Your task to perform on an android device: What's the weather? Image 0: 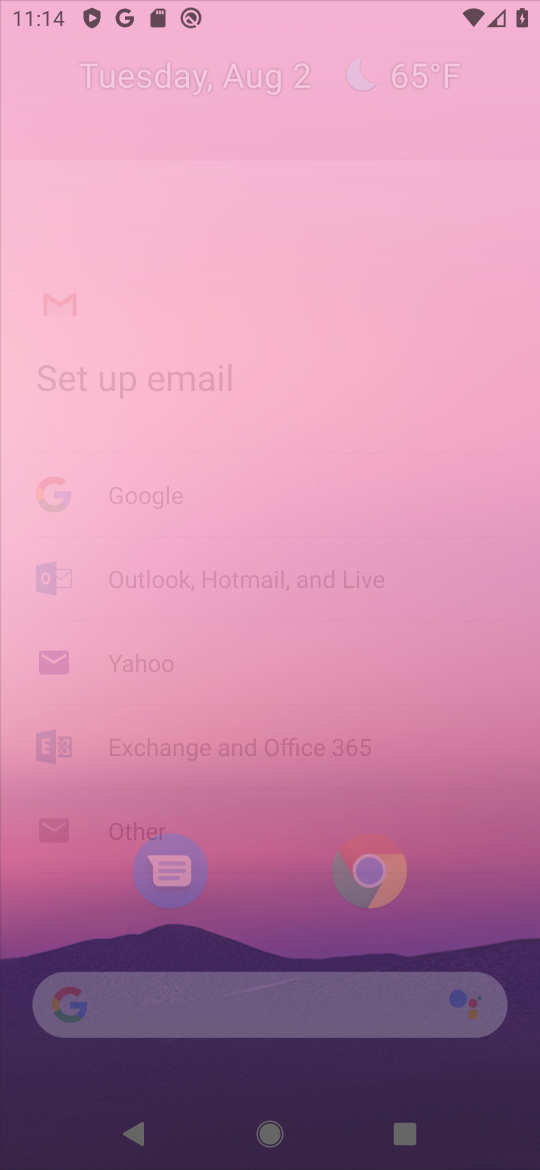
Step 0: click (310, 349)
Your task to perform on an android device: What's the weather? Image 1: 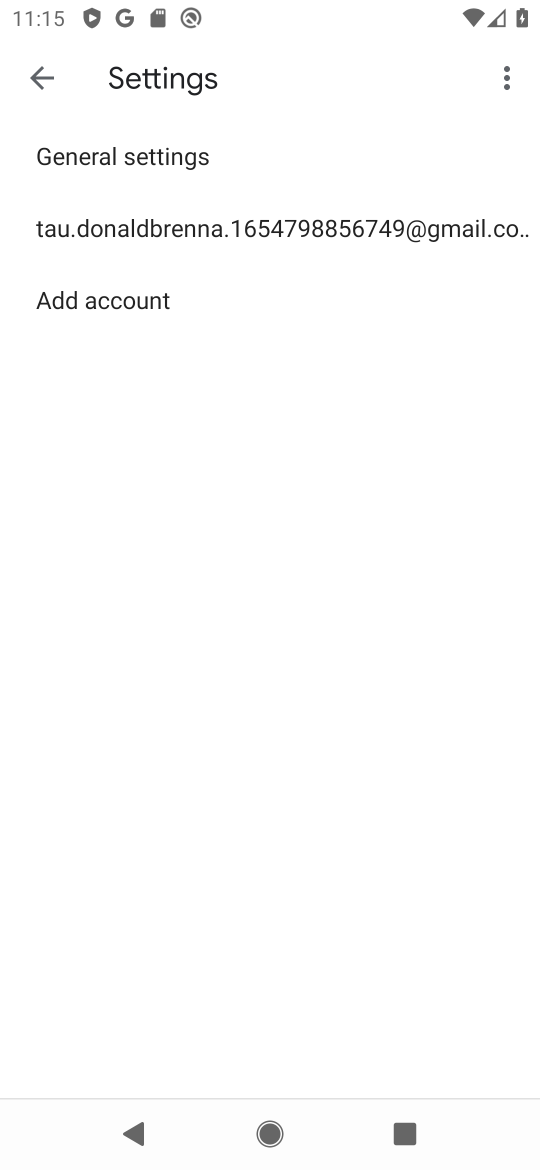
Step 1: click (61, 66)
Your task to perform on an android device: What's the weather? Image 2: 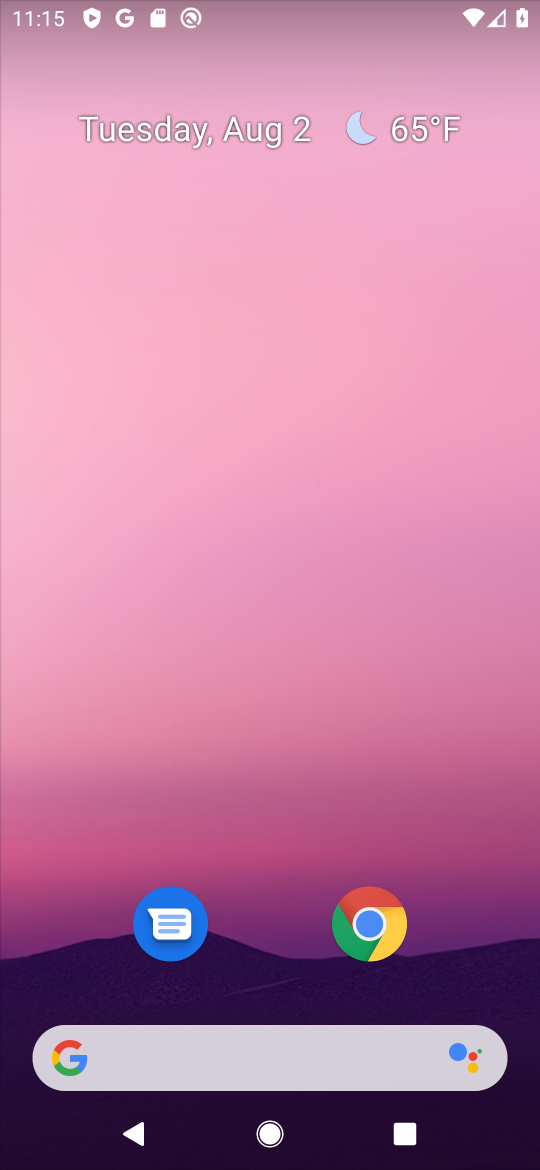
Step 2: drag from (240, 988) to (321, 175)
Your task to perform on an android device: What's the weather? Image 3: 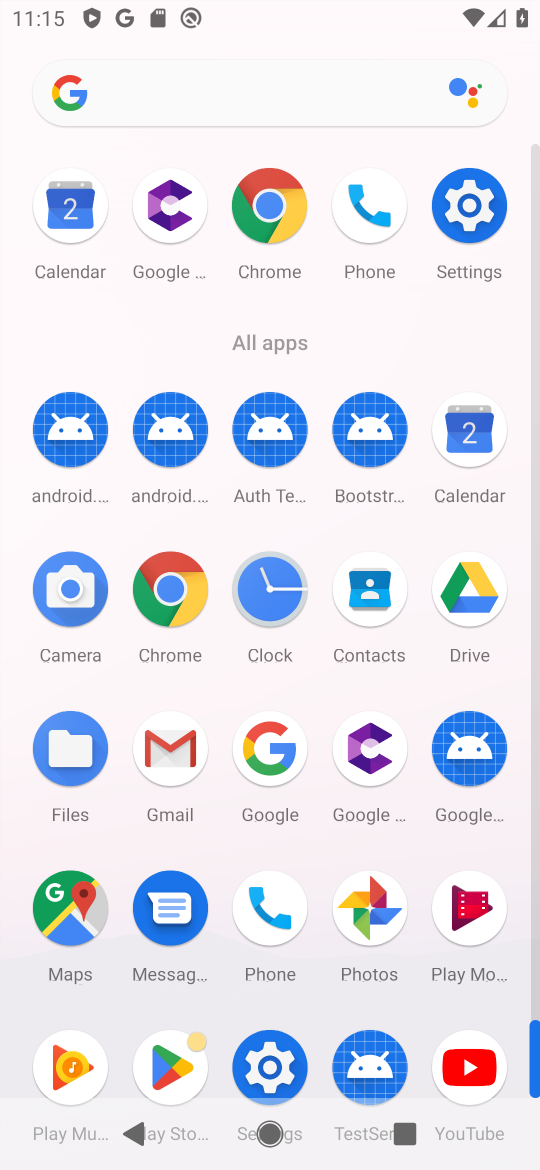
Step 3: click (260, 216)
Your task to perform on an android device: What's the weather? Image 4: 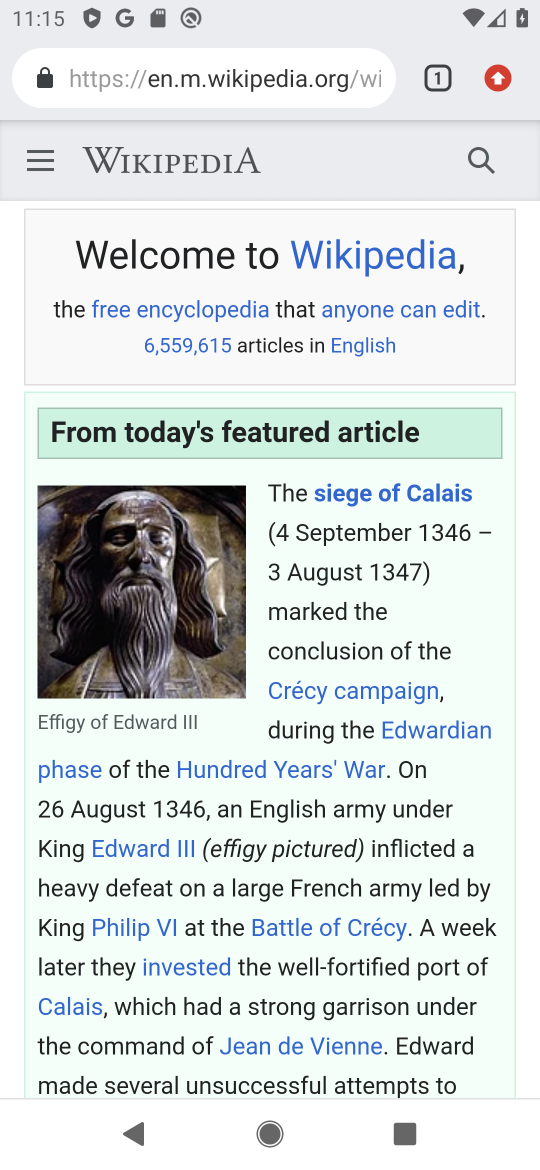
Step 4: click (508, 75)
Your task to perform on an android device: What's the weather? Image 5: 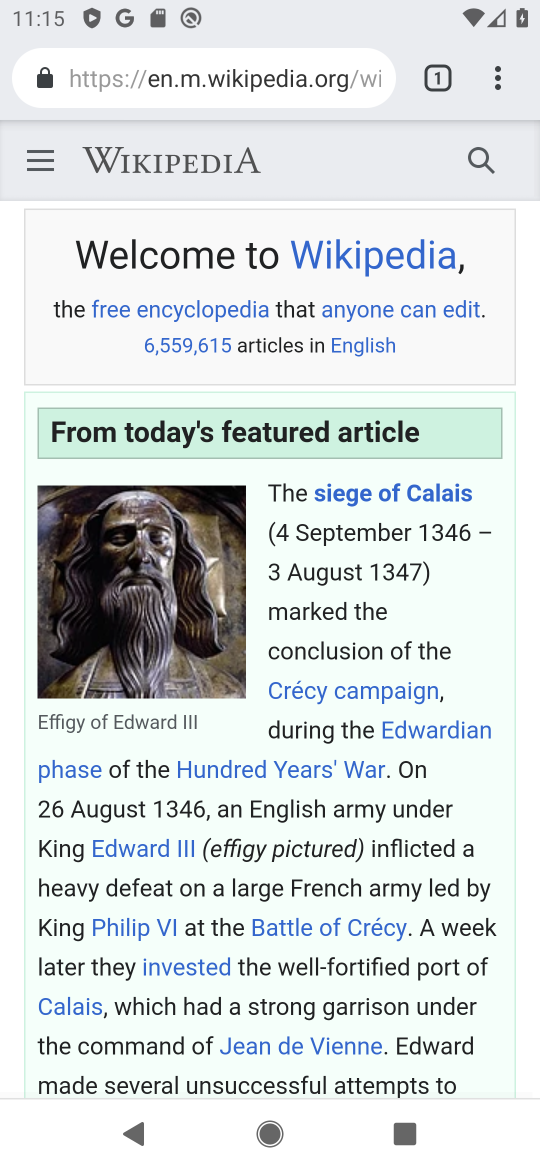
Step 5: click (508, 75)
Your task to perform on an android device: What's the weather? Image 6: 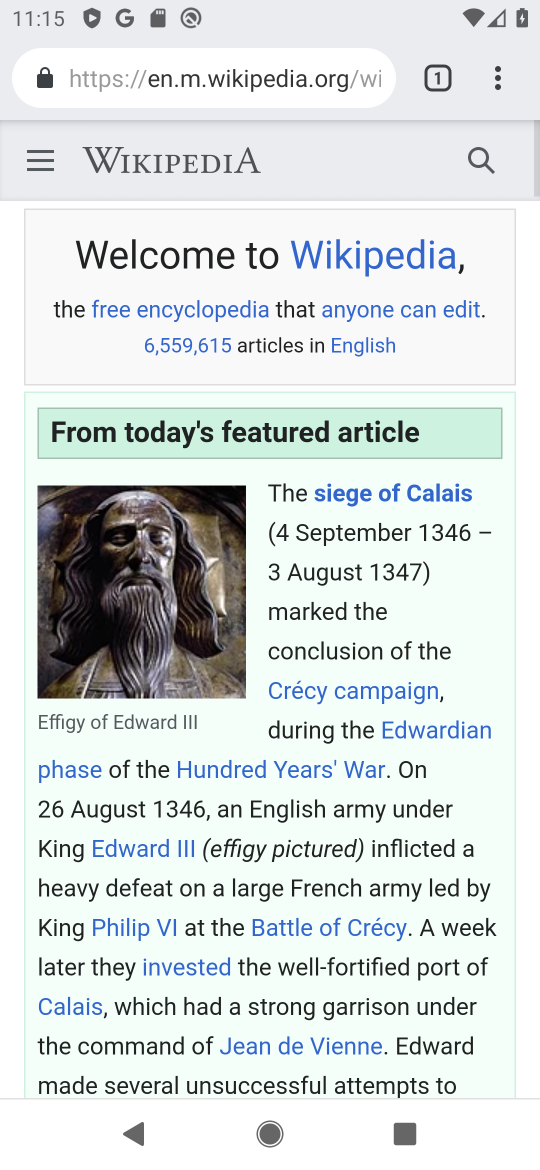
Step 6: click (493, 72)
Your task to perform on an android device: What's the weather? Image 7: 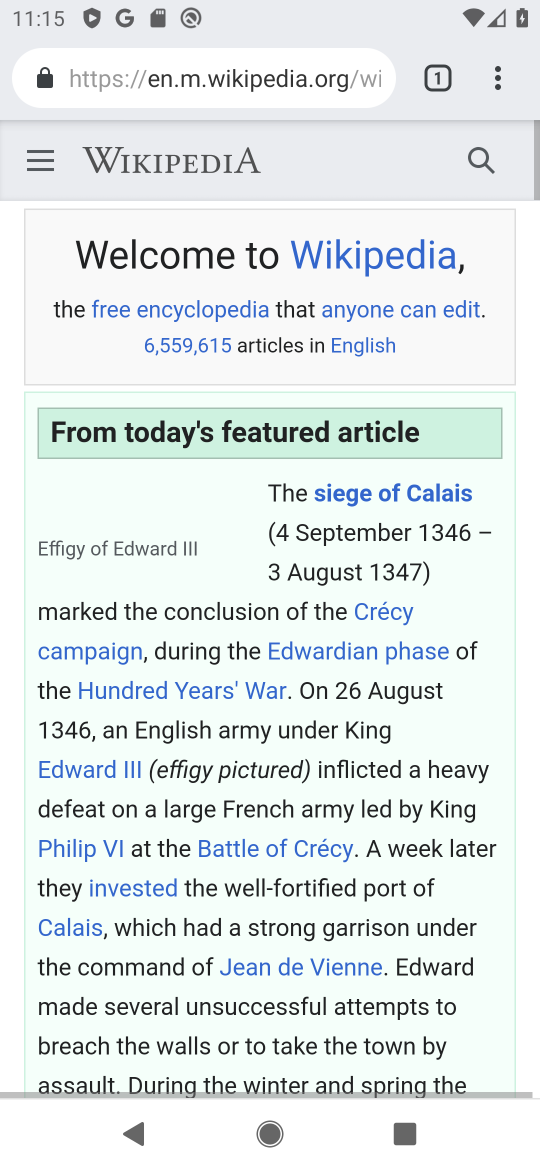
Step 7: click (493, 72)
Your task to perform on an android device: What's the weather? Image 8: 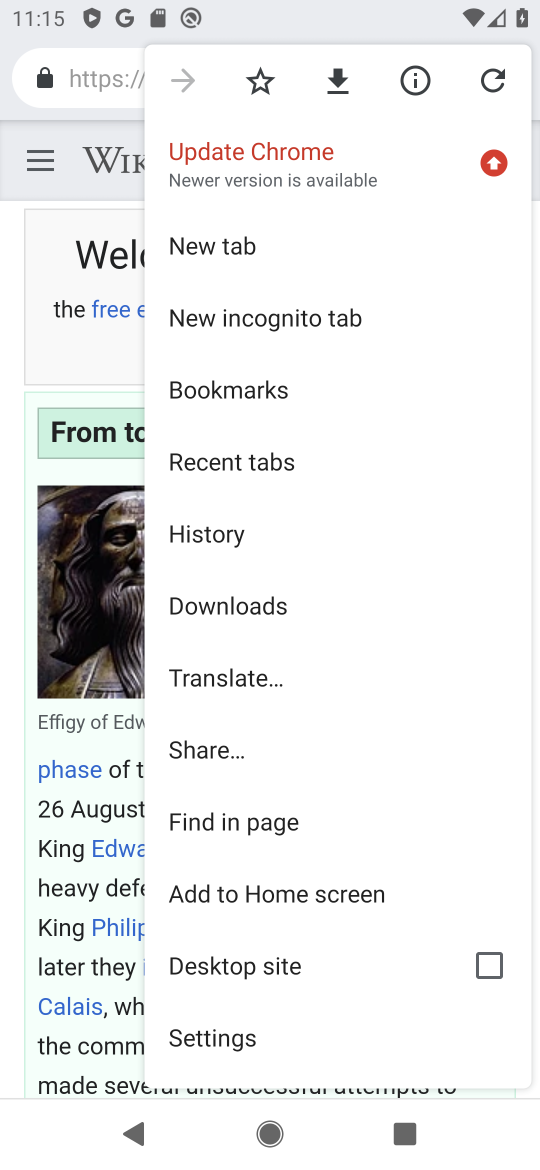
Step 8: click (216, 261)
Your task to perform on an android device: What's the weather? Image 9: 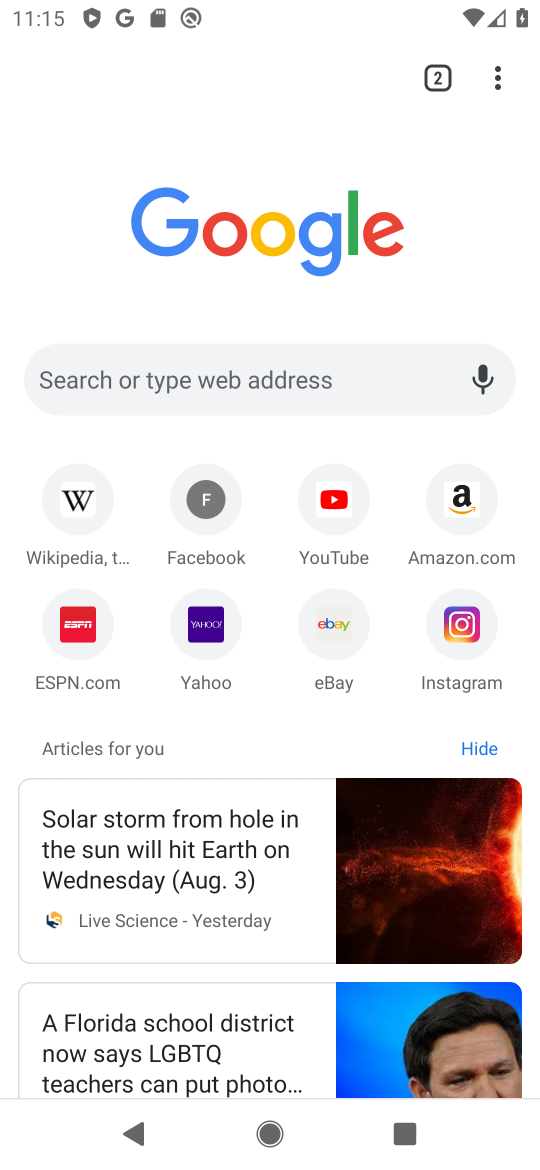
Step 9: click (264, 378)
Your task to perform on an android device: What's the weather? Image 10: 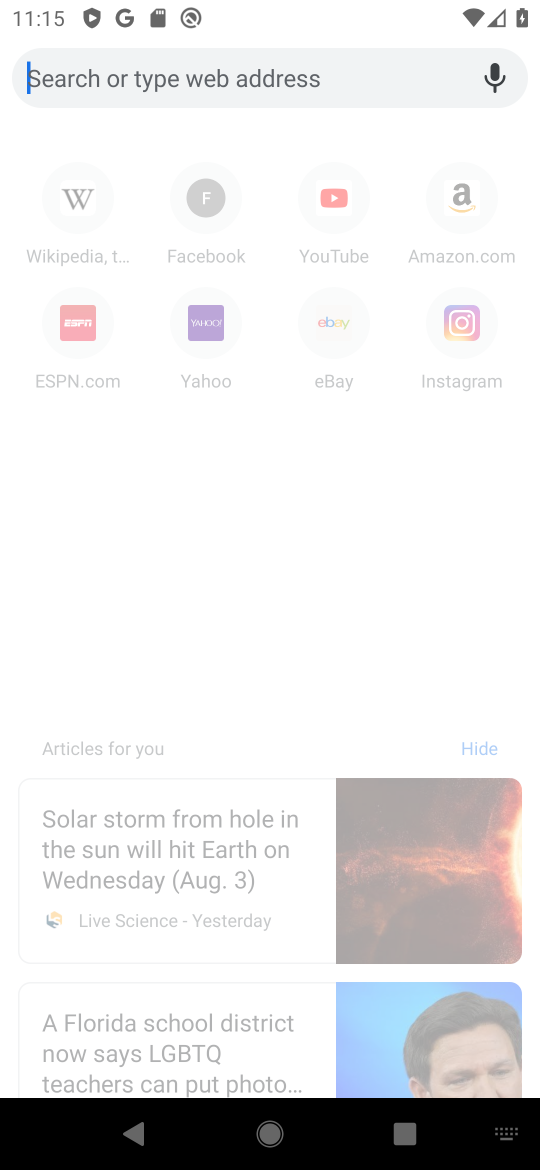
Step 10: type "What's the weather? "
Your task to perform on an android device: What's the weather? Image 11: 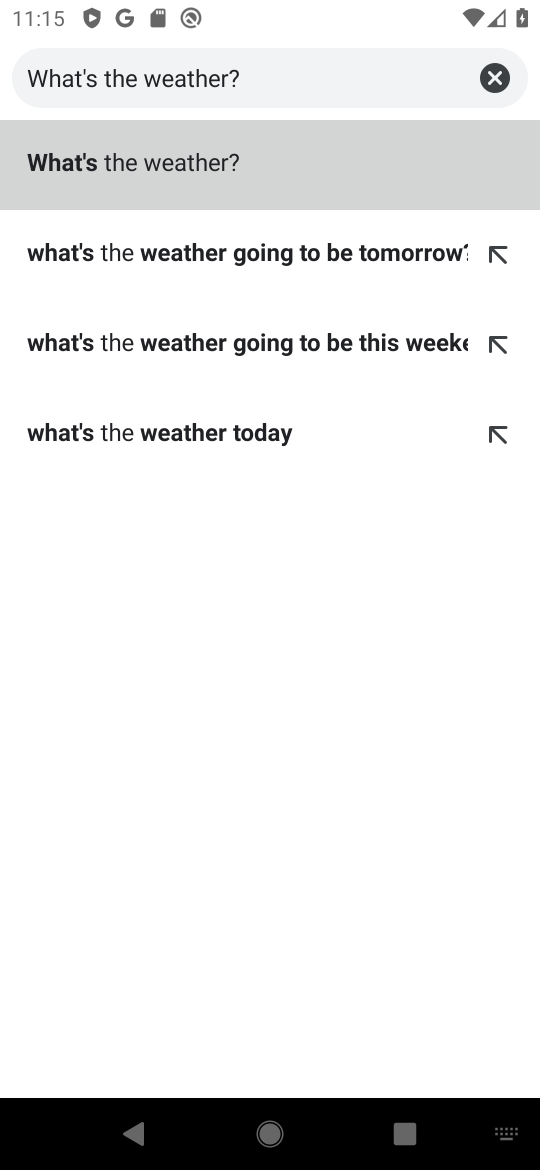
Step 11: click (215, 164)
Your task to perform on an android device: What's the weather? Image 12: 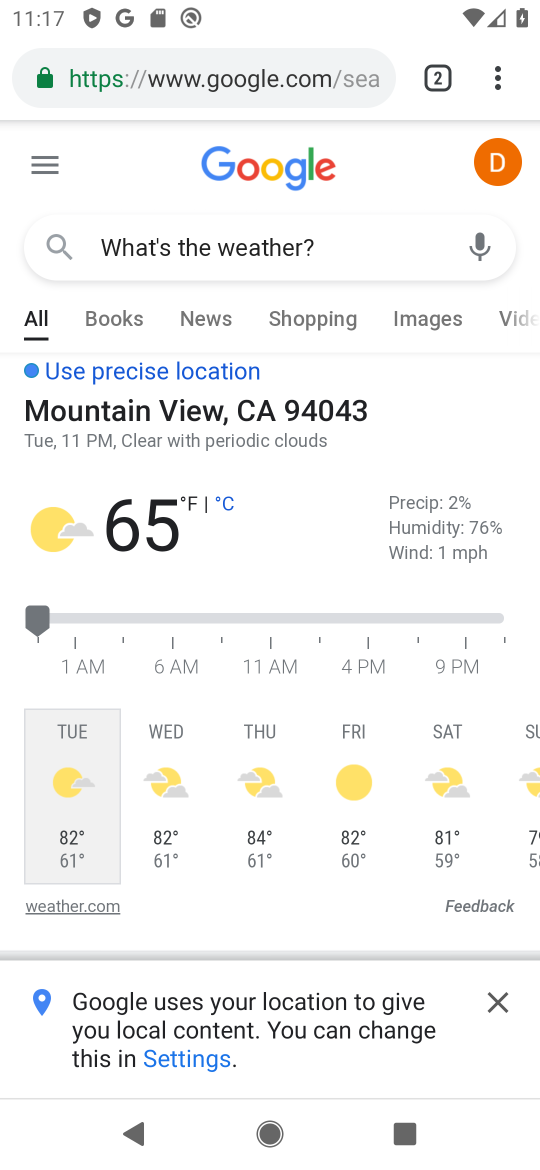
Step 12: task complete